Your task to perform on an android device: check data usage Image 0: 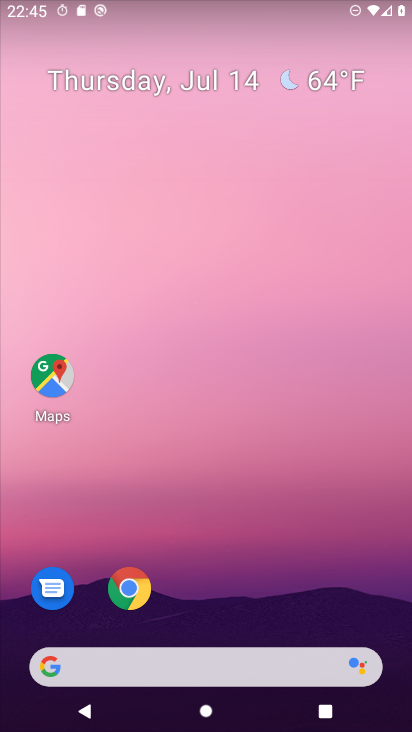
Step 0: drag from (283, 537) to (352, 50)
Your task to perform on an android device: check data usage Image 1: 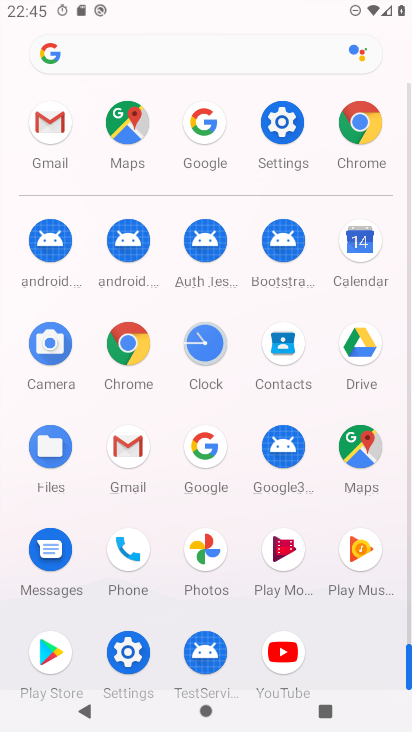
Step 1: click (289, 131)
Your task to perform on an android device: check data usage Image 2: 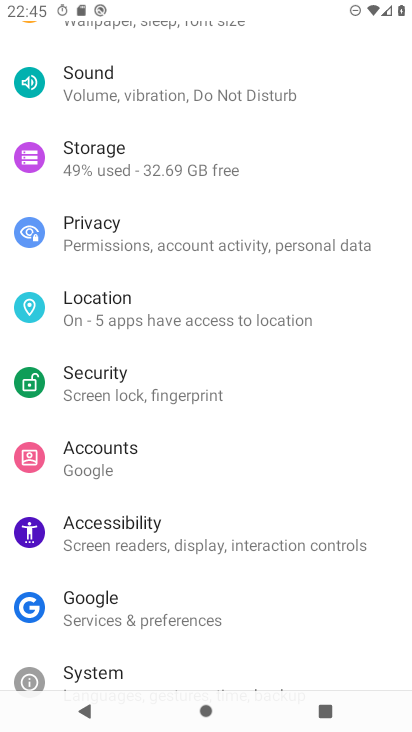
Step 2: drag from (366, 182) to (369, 231)
Your task to perform on an android device: check data usage Image 3: 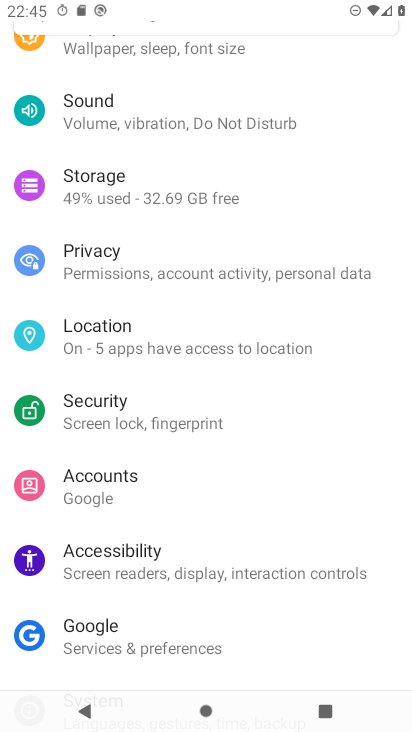
Step 3: drag from (366, 151) to (366, 234)
Your task to perform on an android device: check data usage Image 4: 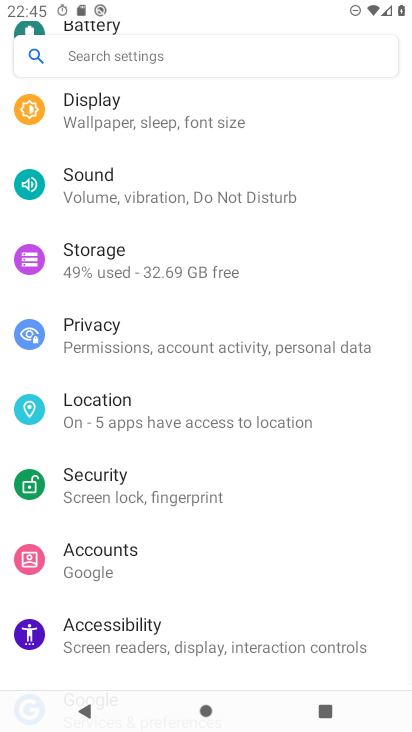
Step 4: drag from (350, 176) to (356, 251)
Your task to perform on an android device: check data usage Image 5: 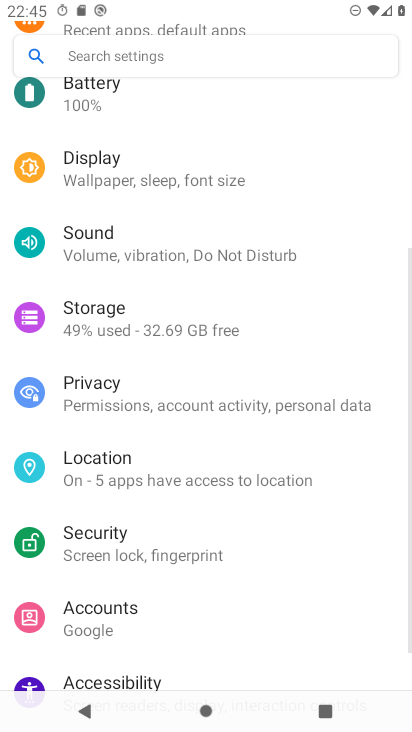
Step 5: drag from (347, 191) to (354, 285)
Your task to perform on an android device: check data usage Image 6: 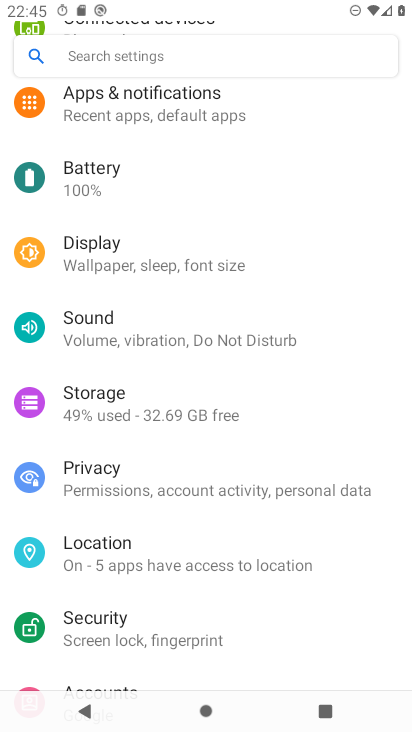
Step 6: drag from (360, 244) to (366, 301)
Your task to perform on an android device: check data usage Image 7: 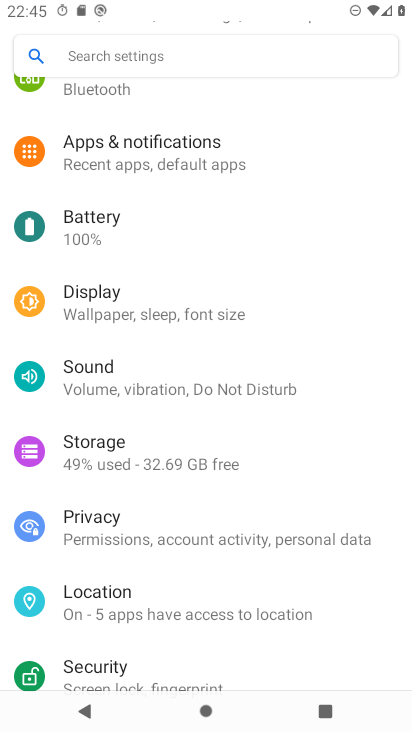
Step 7: drag from (362, 204) to (366, 281)
Your task to perform on an android device: check data usage Image 8: 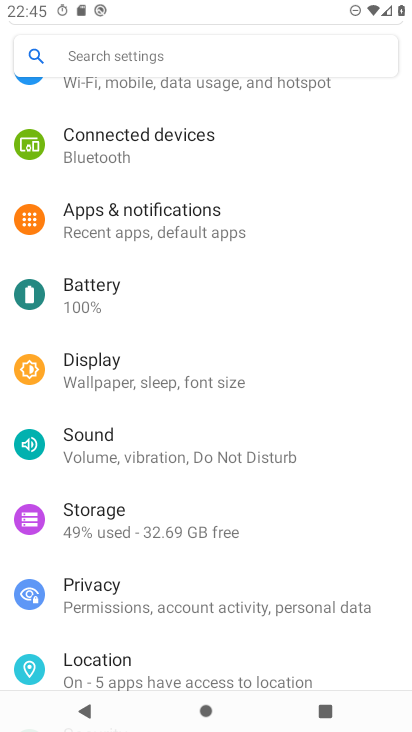
Step 8: drag from (352, 192) to (354, 261)
Your task to perform on an android device: check data usage Image 9: 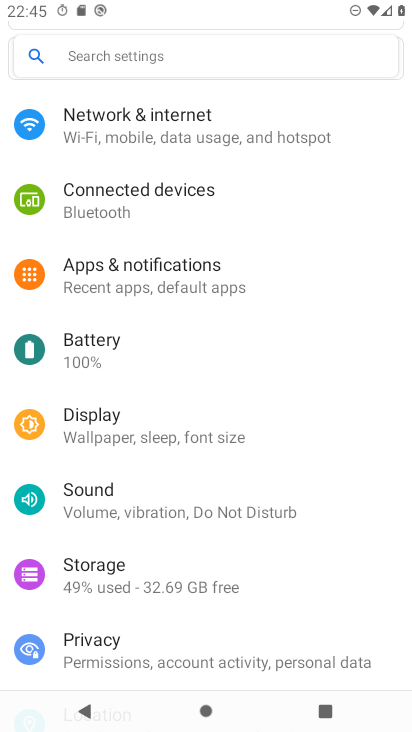
Step 9: drag from (360, 162) to (364, 249)
Your task to perform on an android device: check data usage Image 10: 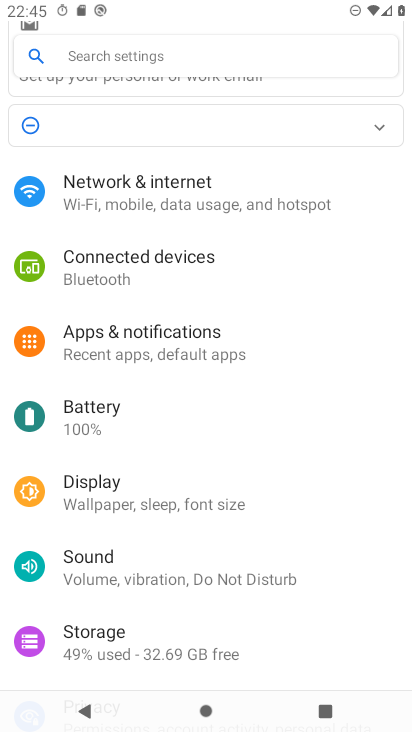
Step 10: drag from (362, 204) to (371, 348)
Your task to perform on an android device: check data usage Image 11: 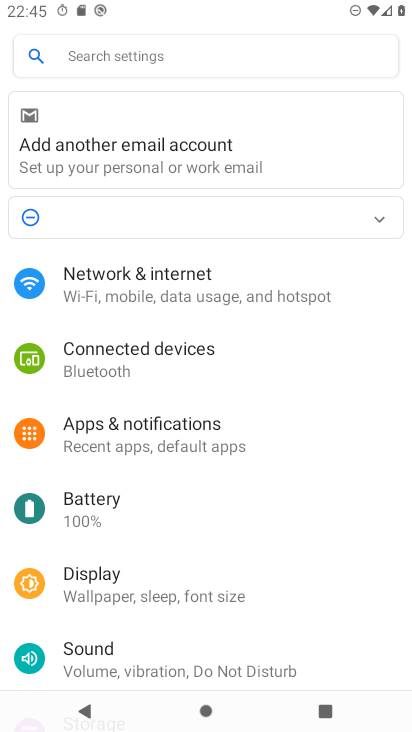
Step 11: click (309, 308)
Your task to perform on an android device: check data usage Image 12: 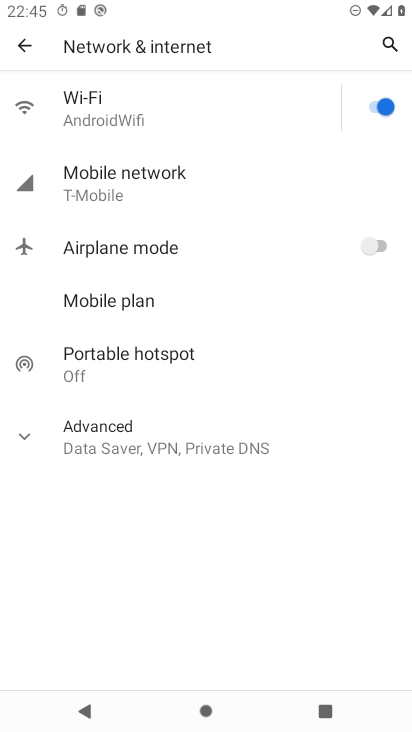
Step 12: click (187, 182)
Your task to perform on an android device: check data usage Image 13: 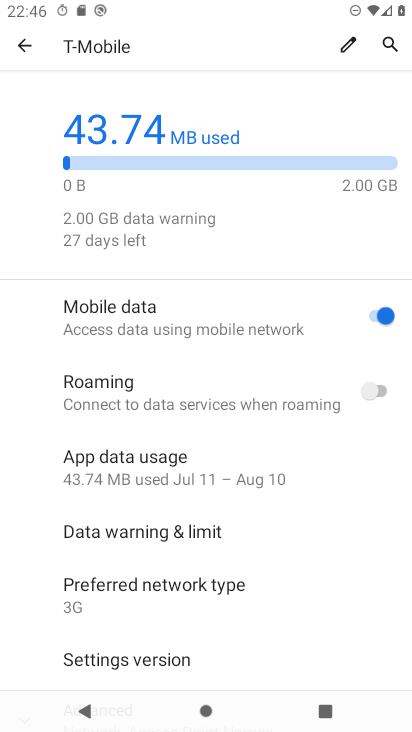
Step 13: drag from (283, 455) to (303, 345)
Your task to perform on an android device: check data usage Image 14: 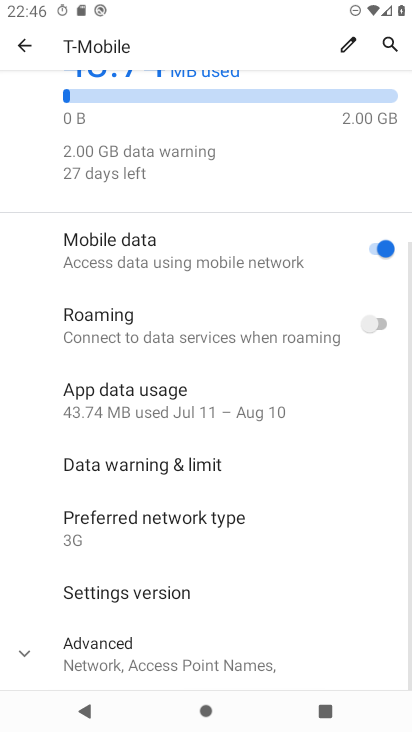
Step 14: click (255, 402)
Your task to perform on an android device: check data usage Image 15: 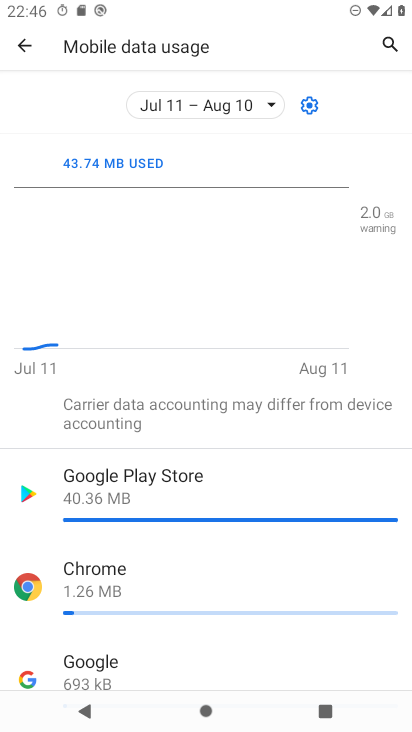
Step 15: task complete